Your task to perform on an android device: What's on my calendar tomorrow? Image 0: 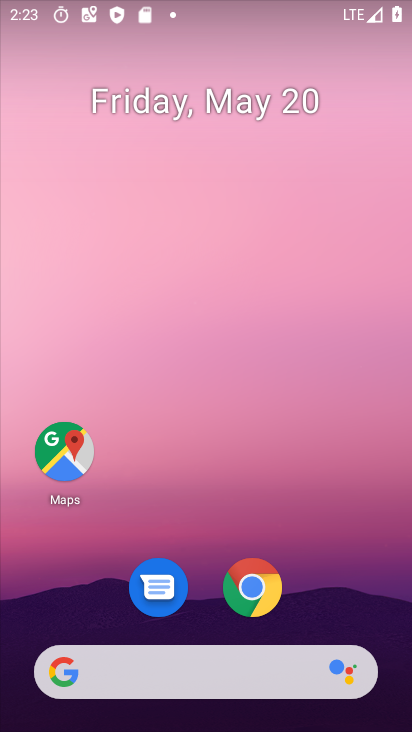
Step 0: drag from (342, 582) to (345, 126)
Your task to perform on an android device: What's on my calendar tomorrow? Image 1: 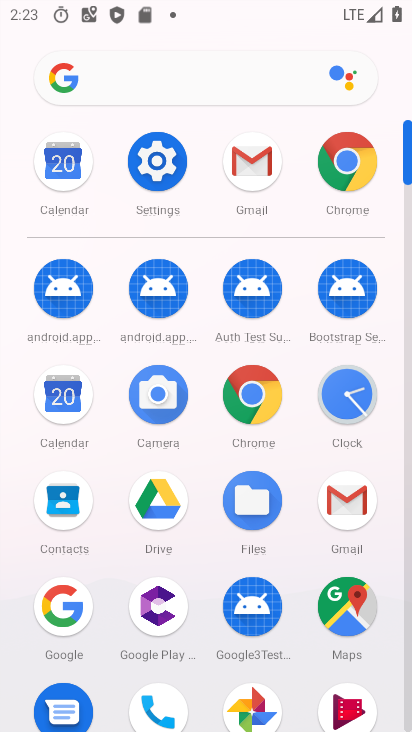
Step 1: click (68, 388)
Your task to perform on an android device: What's on my calendar tomorrow? Image 2: 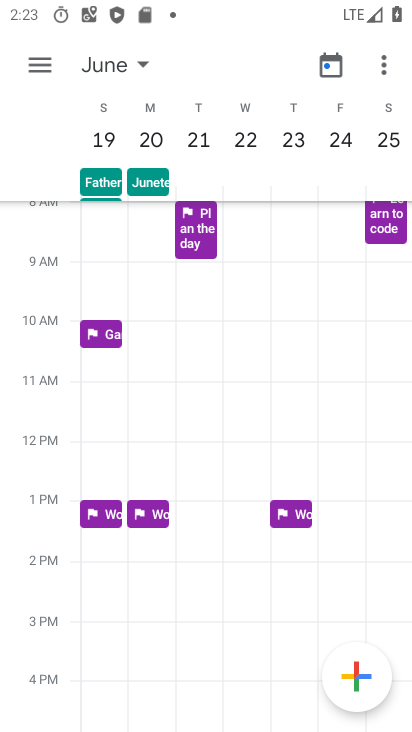
Step 2: click (119, 55)
Your task to perform on an android device: What's on my calendar tomorrow? Image 3: 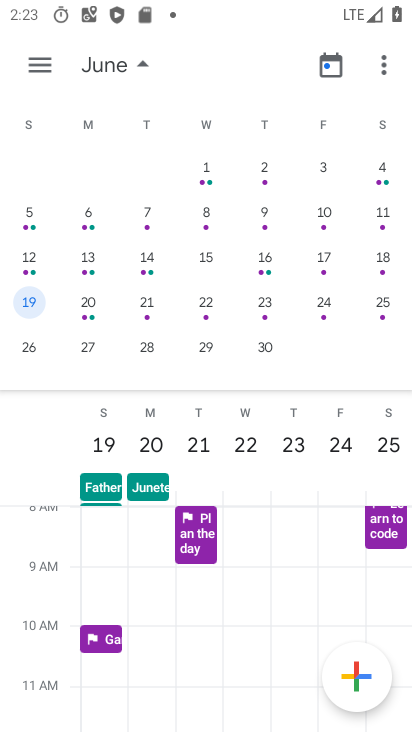
Step 3: drag from (24, 264) to (346, 263)
Your task to perform on an android device: What's on my calendar tomorrow? Image 4: 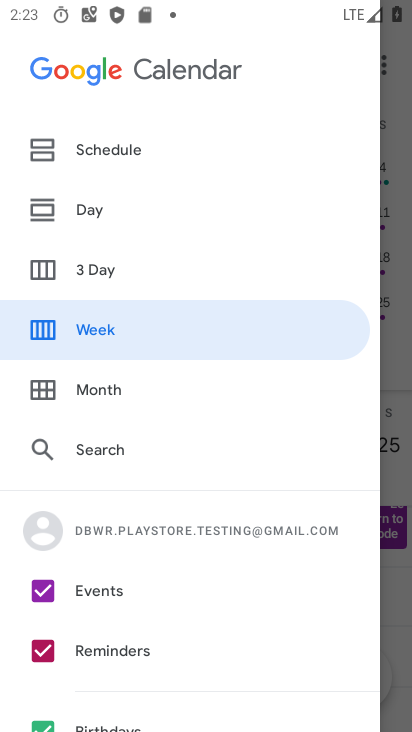
Step 4: drag from (398, 238) to (14, 248)
Your task to perform on an android device: What's on my calendar tomorrow? Image 5: 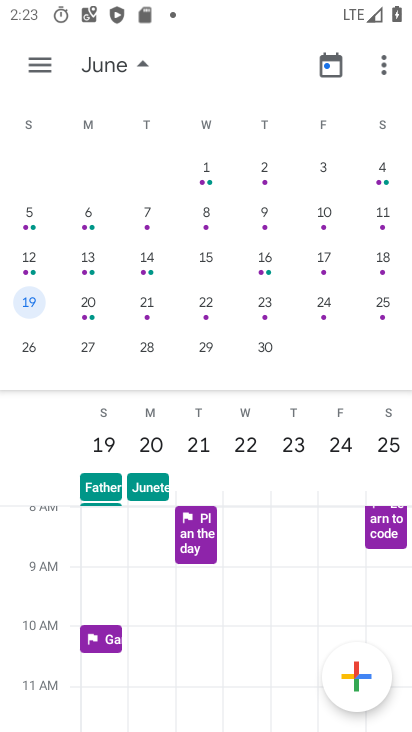
Step 5: drag from (63, 254) to (411, 271)
Your task to perform on an android device: What's on my calendar tomorrow? Image 6: 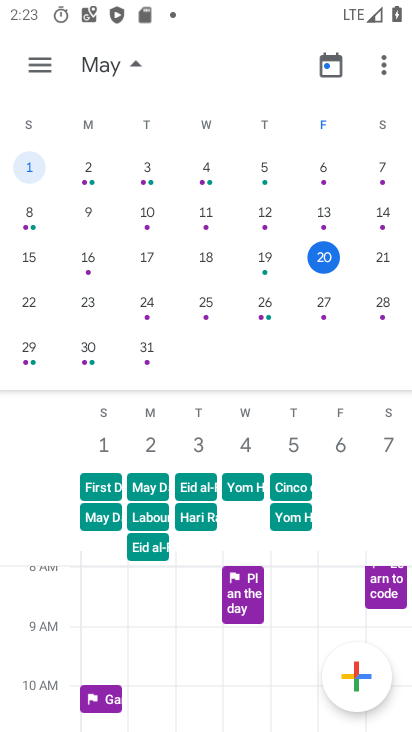
Step 6: click (385, 251)
Your task to perform on an android device: What's on my calendar tomorrow? Image 7: 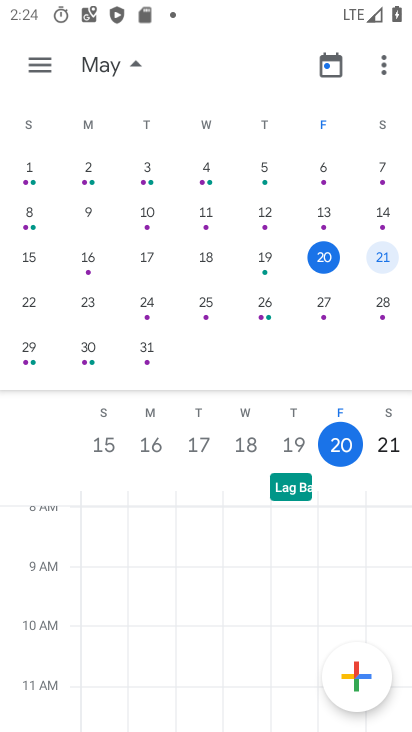
Step 7: click (382, 444)
Your task to perform on an android device: What's on my calendar tomorrow? Image 8: 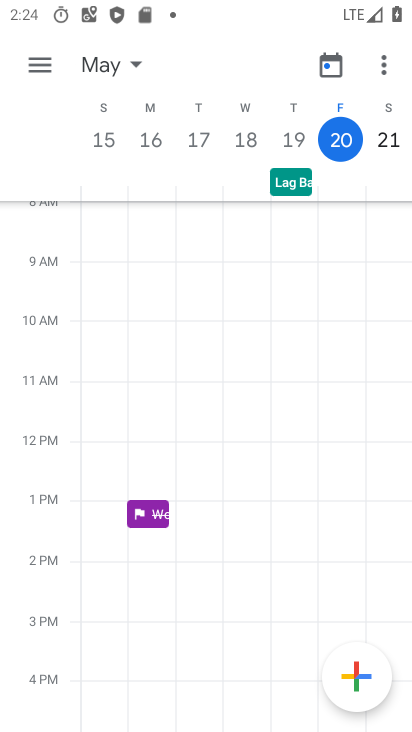
Step 8: task complete